Your task to perform on an android device: turn on data saver in the chrome app Image 0: 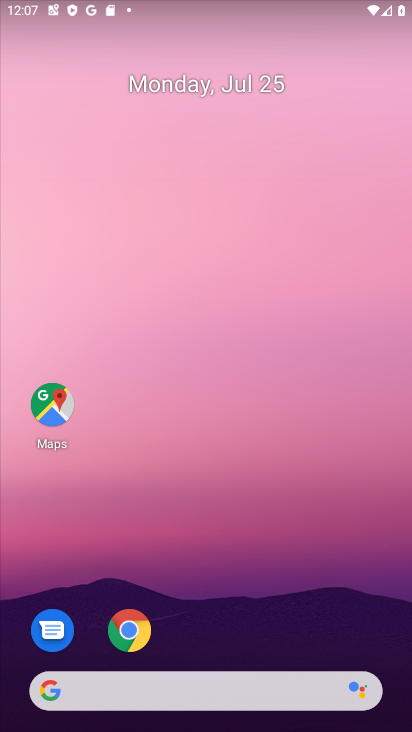
Step 0: press home button
Your task to perform on an android device: turn on data saver in the chrome app Image 1: 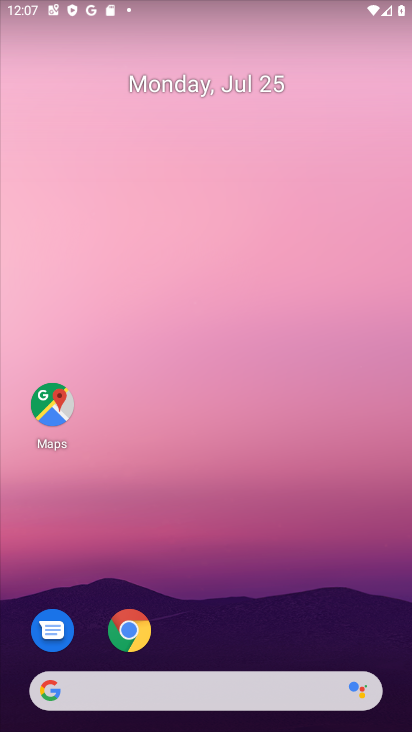
Step 1: drag from (282, 664) to (279, 484)
Your task to perform on an android device: turn on data saver in the chrome app Image 2: 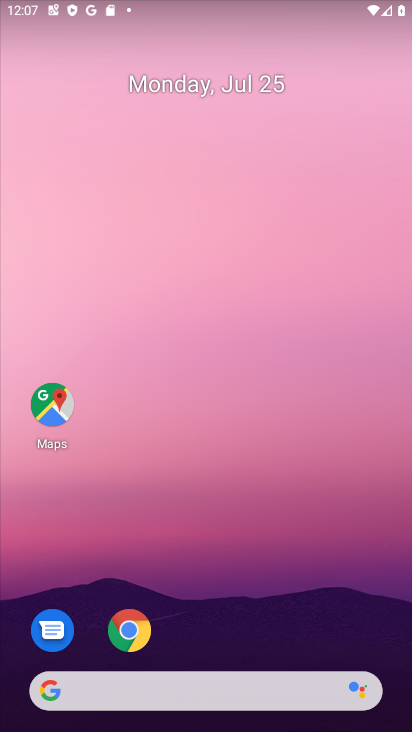
Step 2: drag from (250, 682) to (227, 19)
Your task to perform on an android device: turn on data saver in the chrome app Image 3: 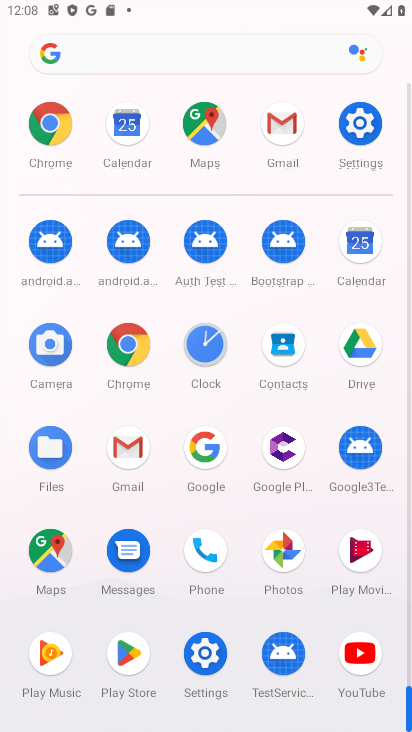
Step 3: click (138, 325)
Your task to perform on an android device: turn on data saver in the chrome app Image 4: 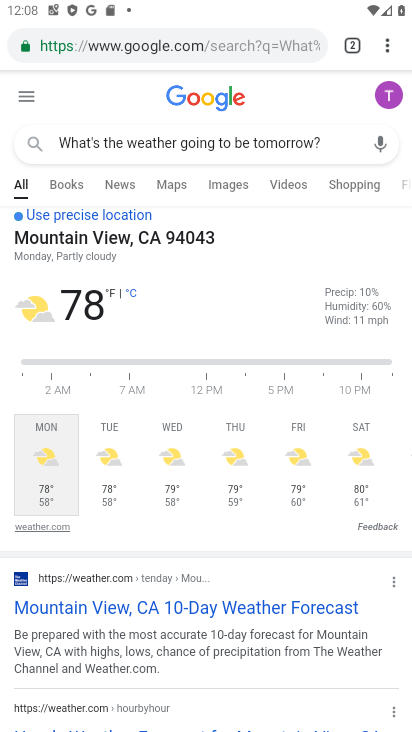
Step 4: drag from (395, 30) to (225, 573)
Your task to perform on an android device: turn on data saver in the chrome app Image 5: 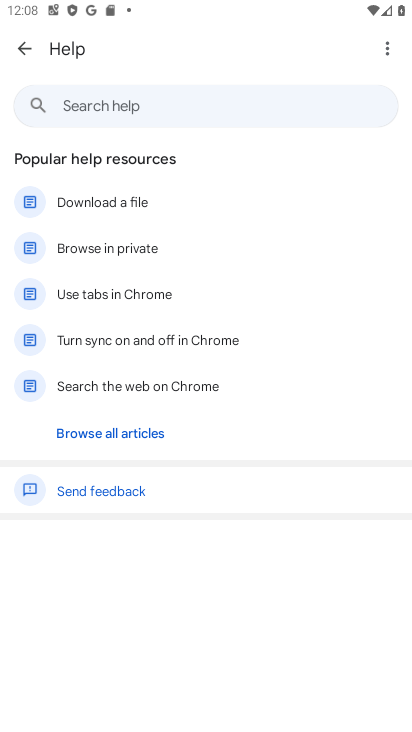
Step 5: press back button
Your task to perform on an android device: turn on data saver in the chrome app Image 6: 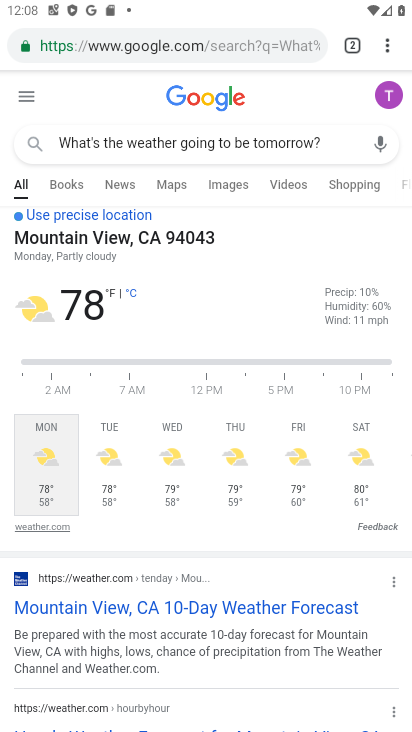
Step 6: drag from (402, 37) to (245, 555)
Your task to perform on an android device: turn on data saver in the chrome app Image 7: 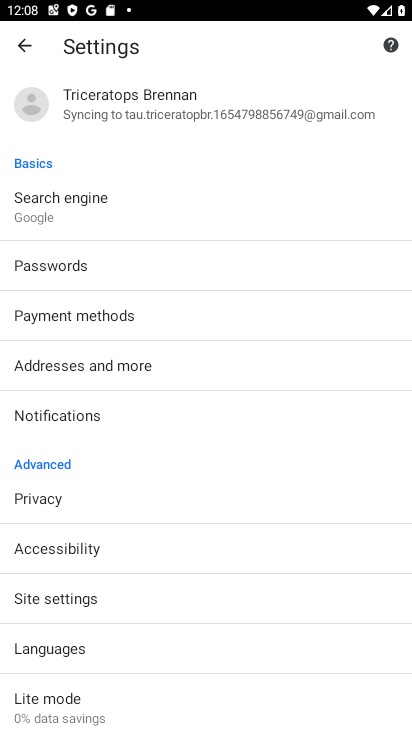
Step 7: click (85, 702)
Your task to perform on an android device: turn on data saver in the chrome app Image 8: 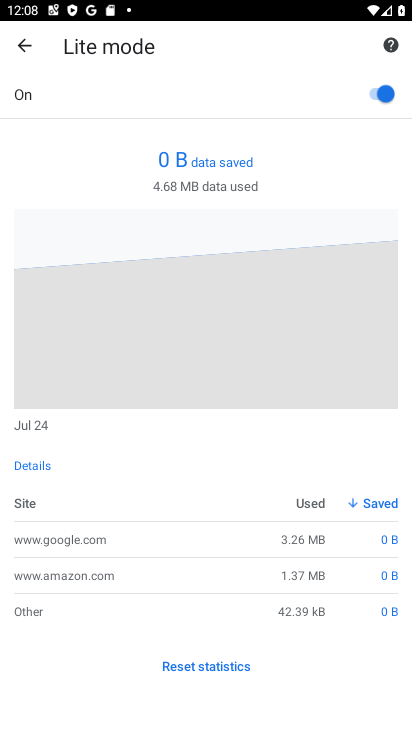
Step 8: task complete